Your task to perform on an android device: toggle priority inbox in the gmail app Image 0: 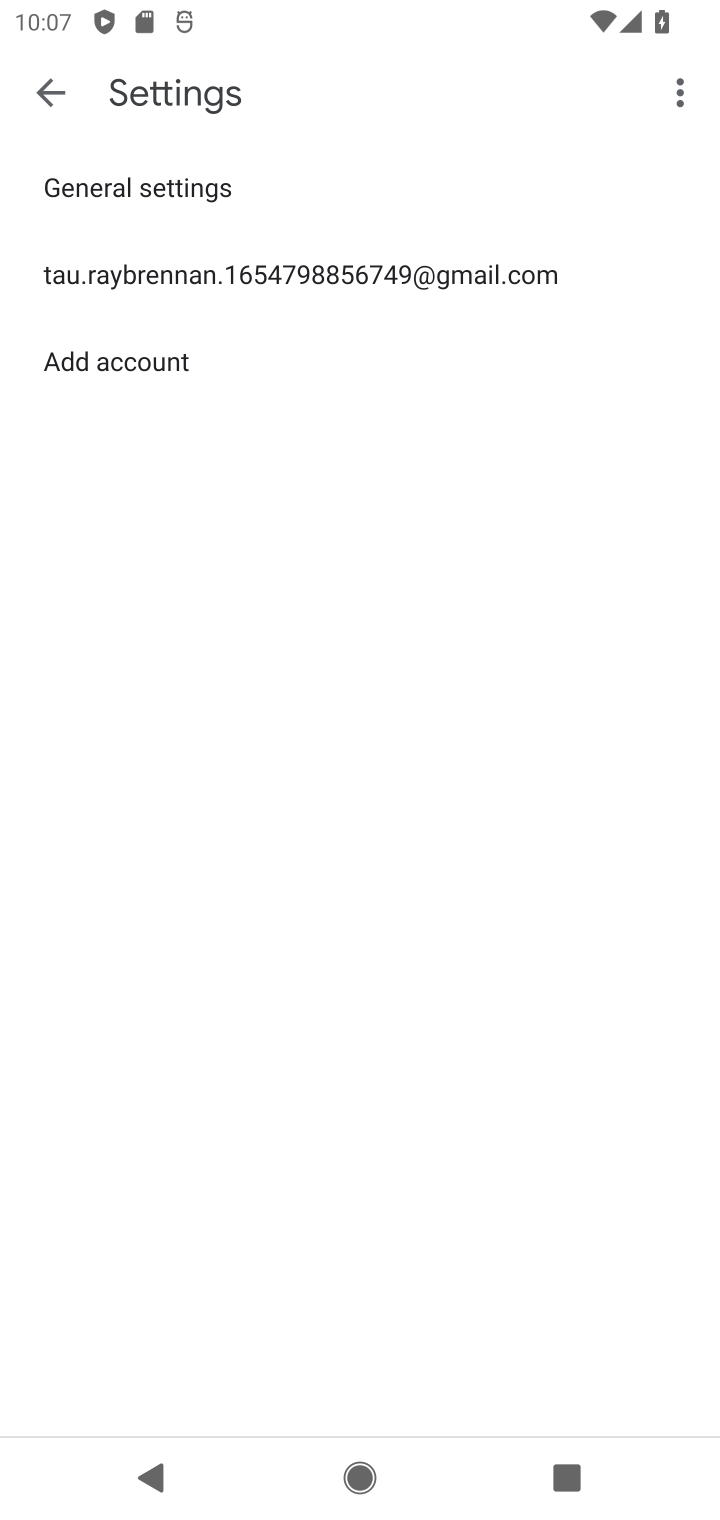
Step 0: press home button
Your task to perform on an android device: toggle priority inbox in the gmail app Image 1: 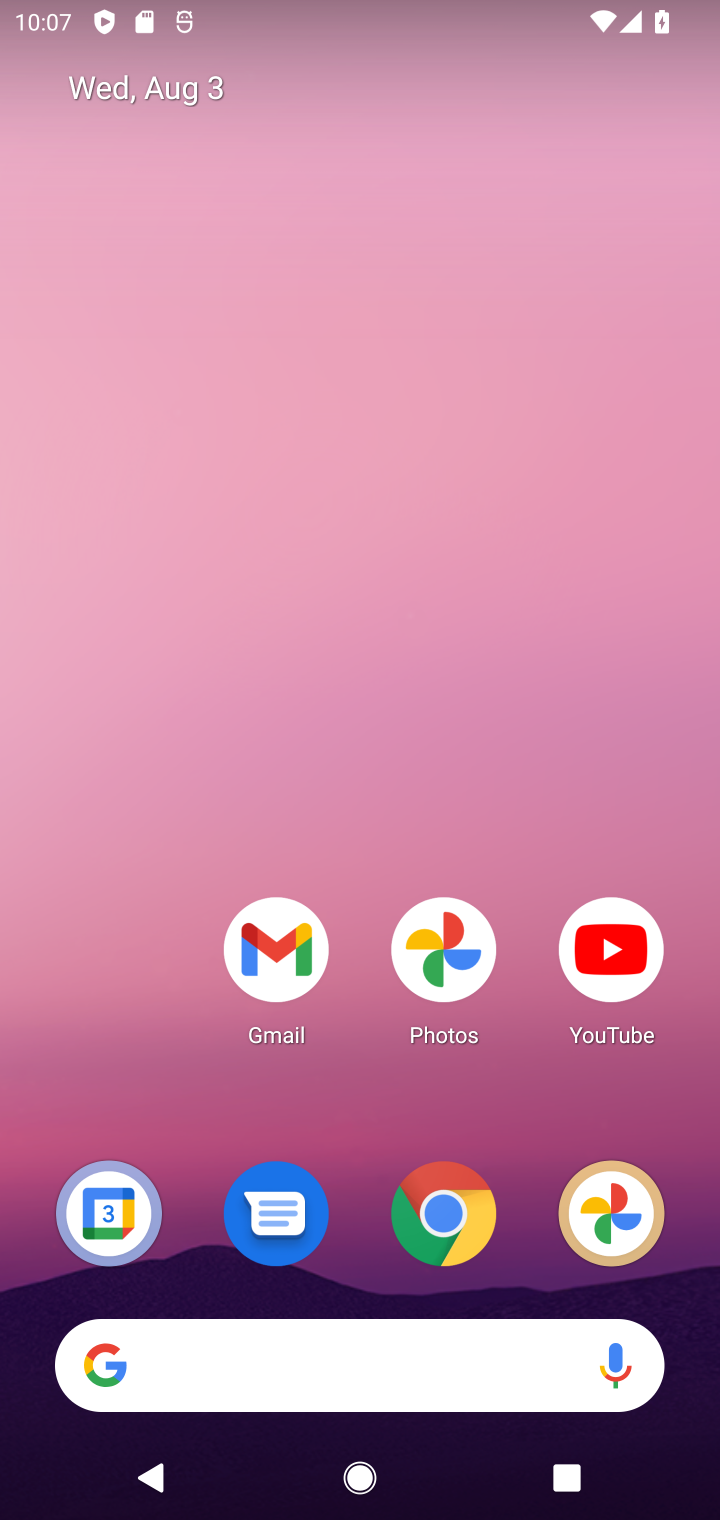
Step 1: click (293, 961)
Your task to perform on an android device: toggle priority inbox in the gmail app Image 2: 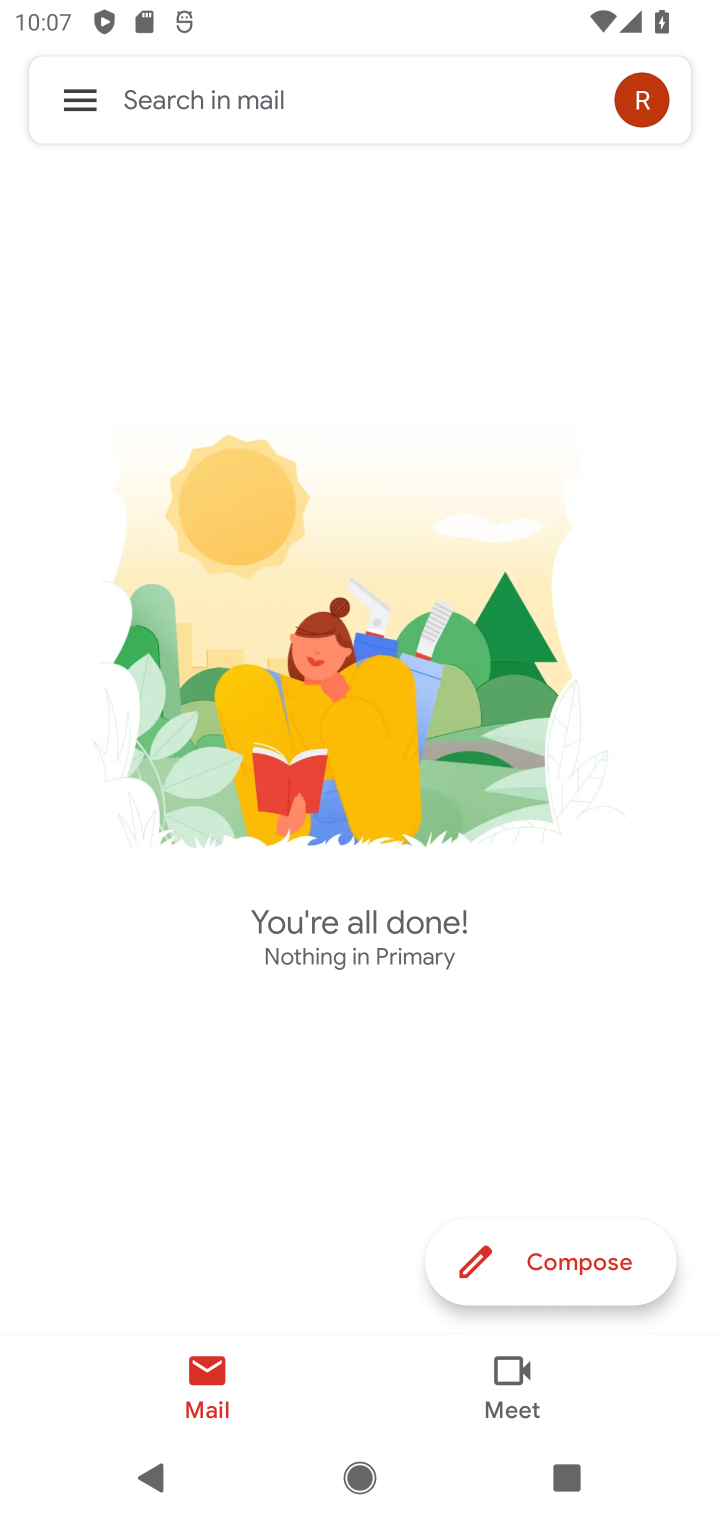
Step 2: click (80, 94)
Your task to perform on an android device: toggle priority inbox in the gmail app Image 3: 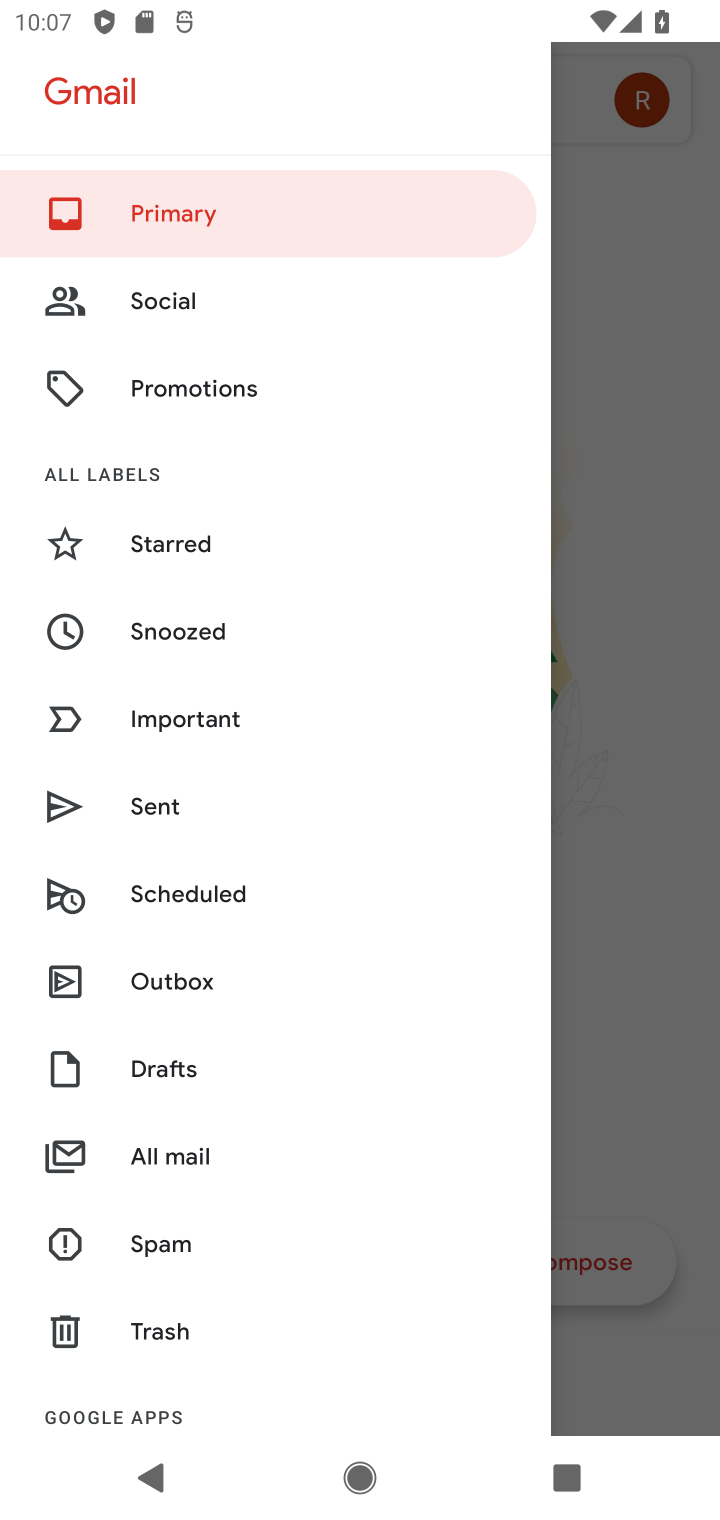
Step 3: drag from (230, 1319) to (235, 1064)
Your task to perform on an android device: toggle priority inbox in the gmail app Image 4: 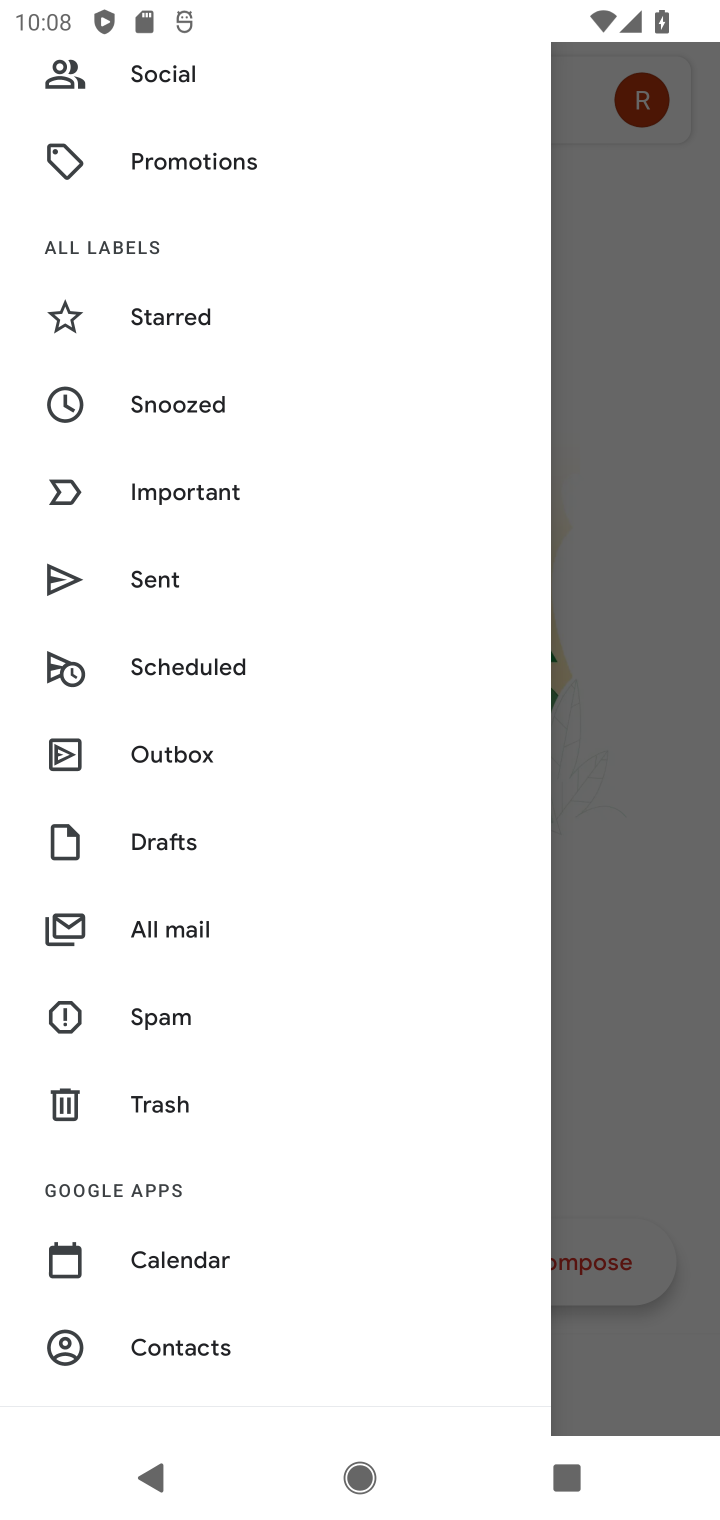
Step 4: drag from (256, 1312) to (283, 858)
Your task to perform on an android device: toggle priority inbox in the gmail app Image 5: 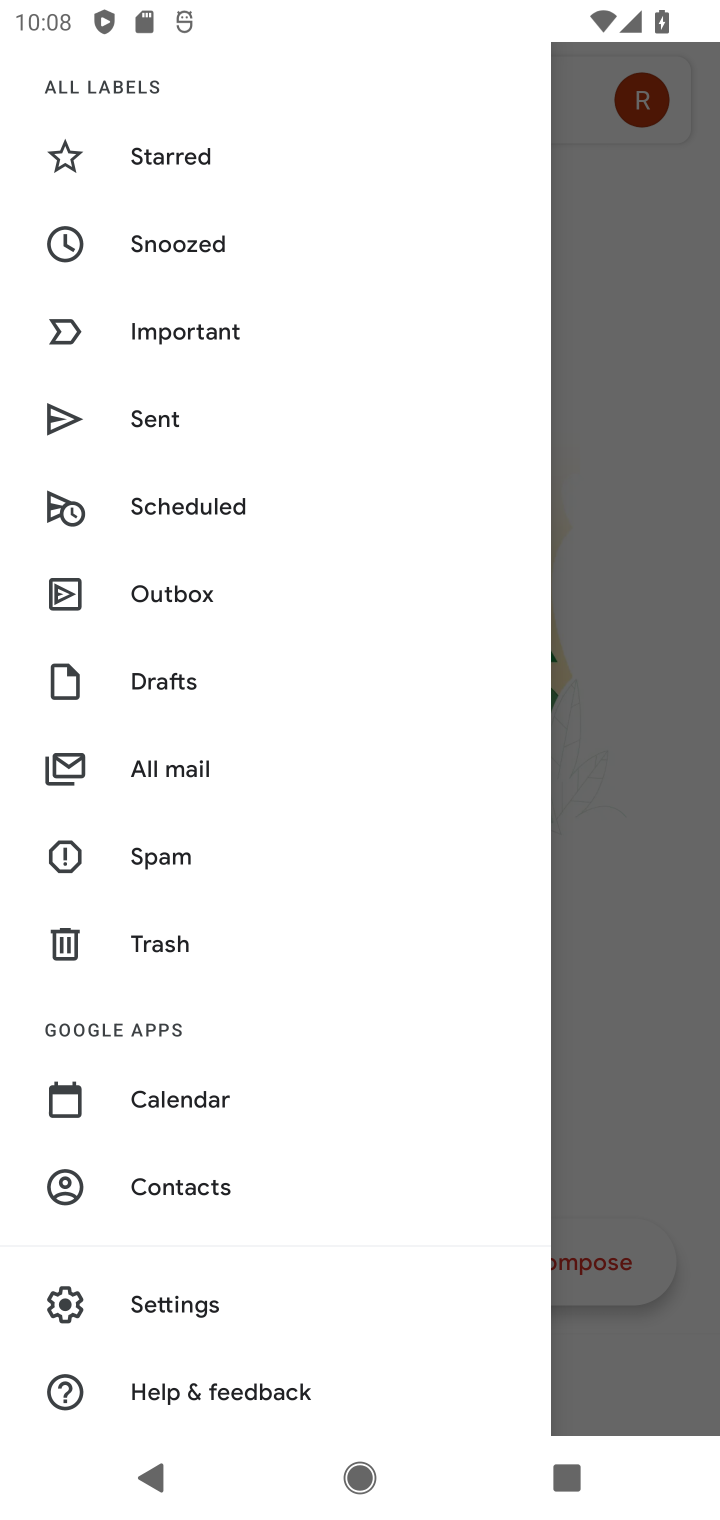
Step 5: click (207, 1304)
Your task to perform on an android device: toggle priority inbox in the gmail app Image 6: 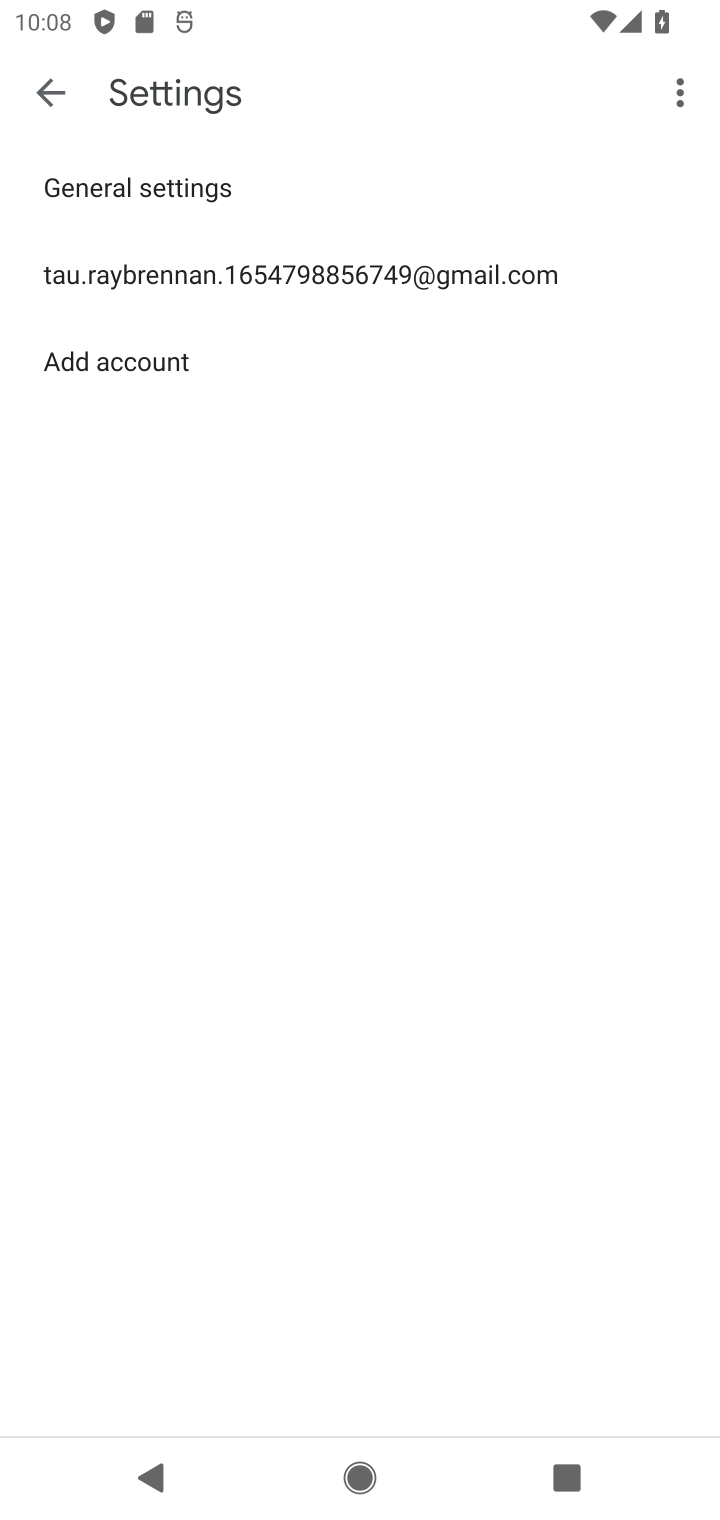
Step 6: click (199, 281)
Your task to perform on an android device: toggle priority inbox in the gmail app Image 7: 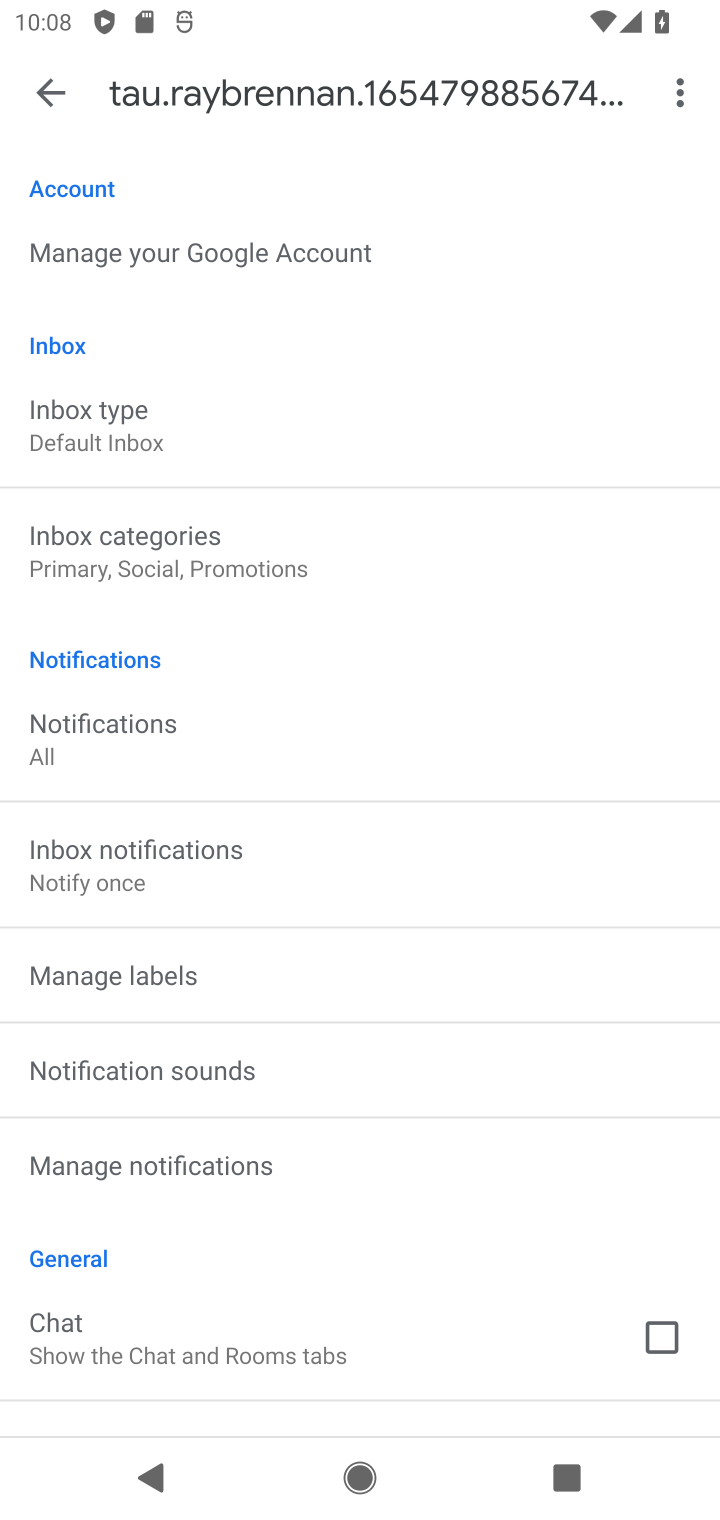
Step 7: click (181, 428)
Your task to perform on an android device: toggle priority inbox in the gmail app Image 8: 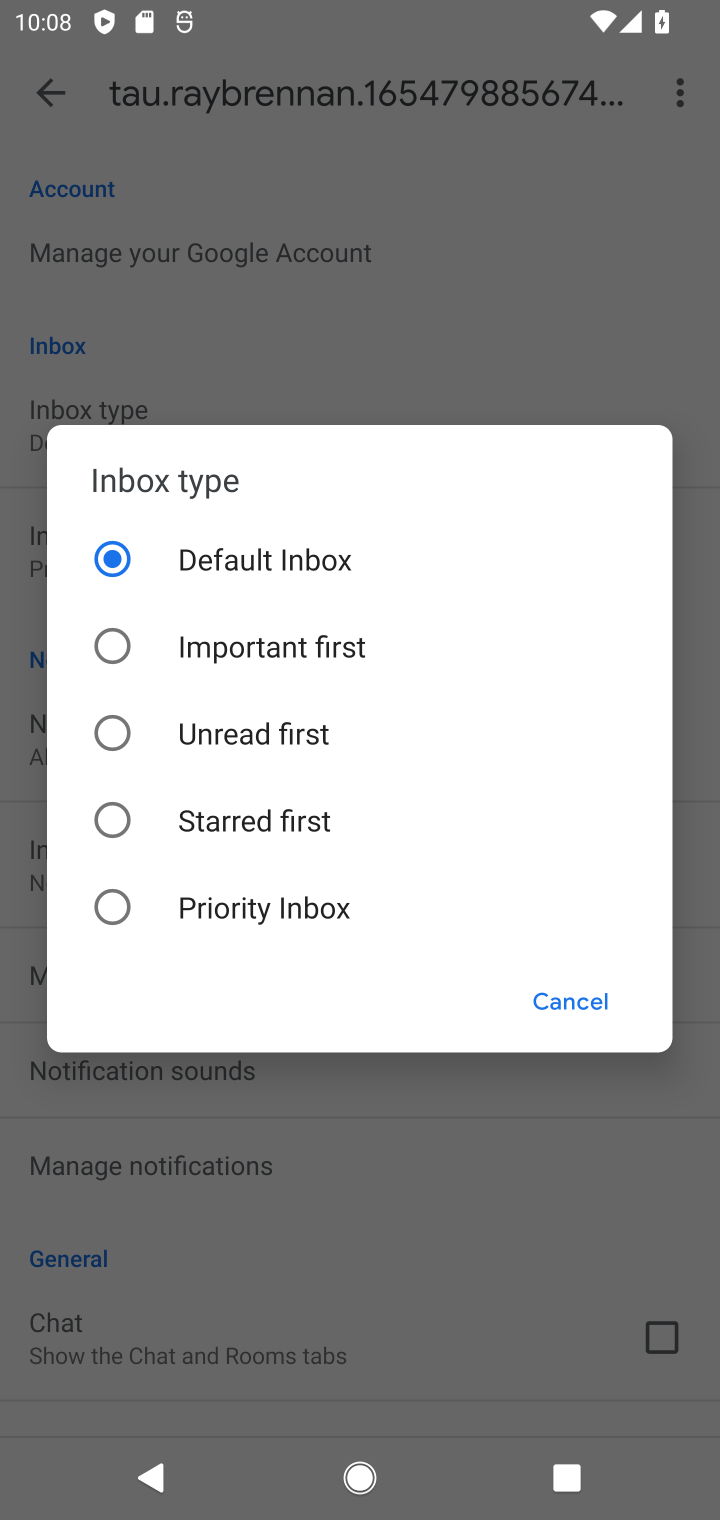
Step 8: click (305, 918)
Your task to perform on an android device: toggle priority inbox in the gmail app Image 9: 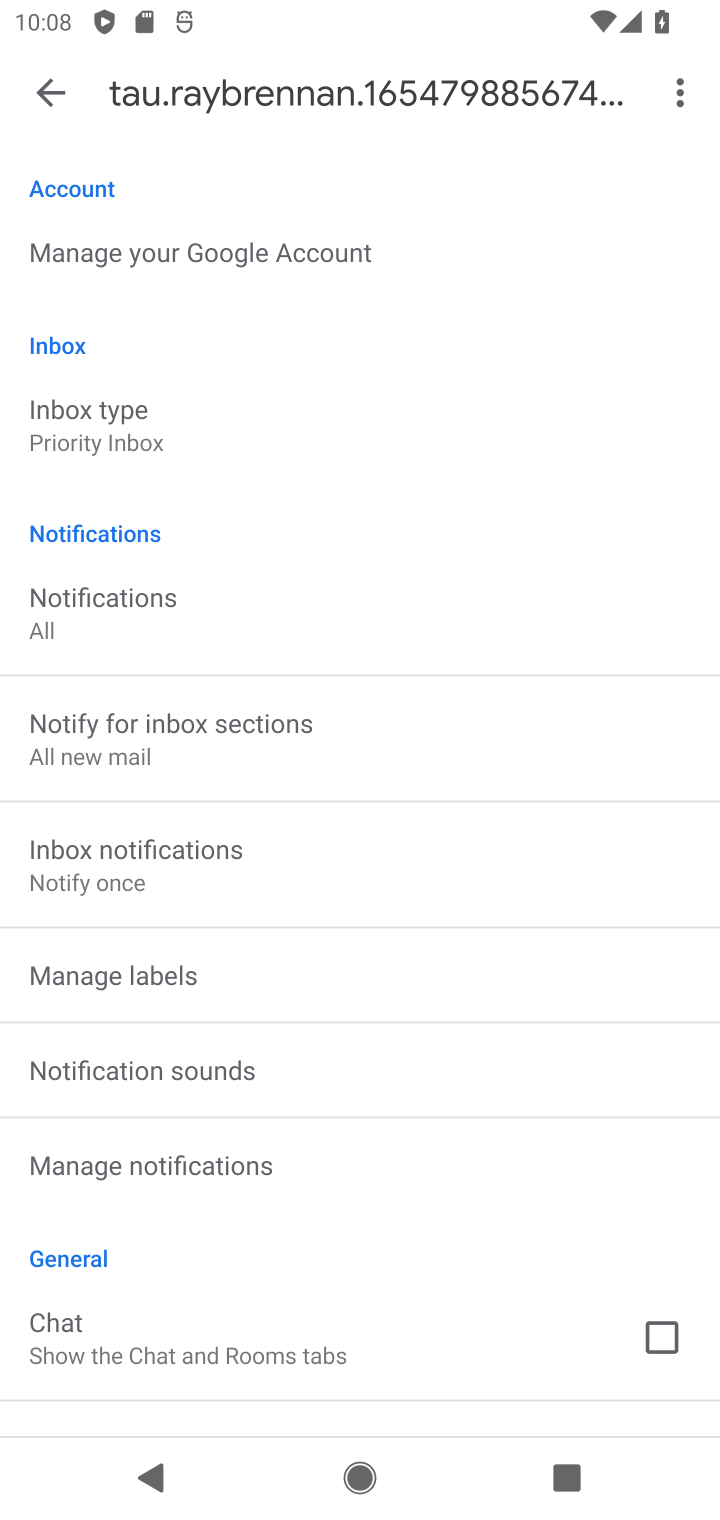
Step 9: task complete